Your task to perform on an android device: Show me the alarms in the clock app Image 0: 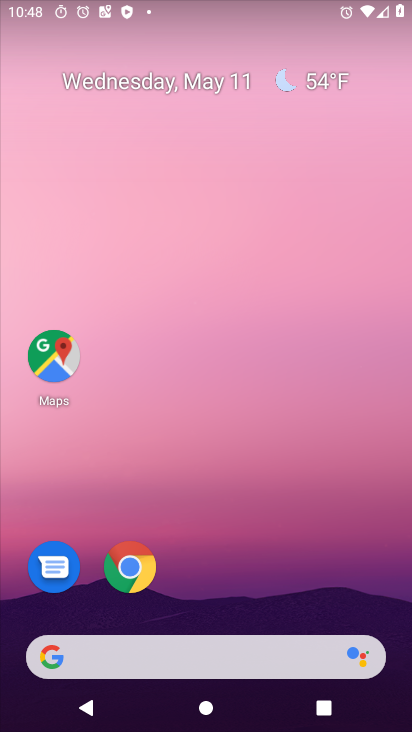
Step 0: drag from (197, 593) to (197, 133)
Your task to perform on an android device: Show me the alarms in the clock app Image 1: 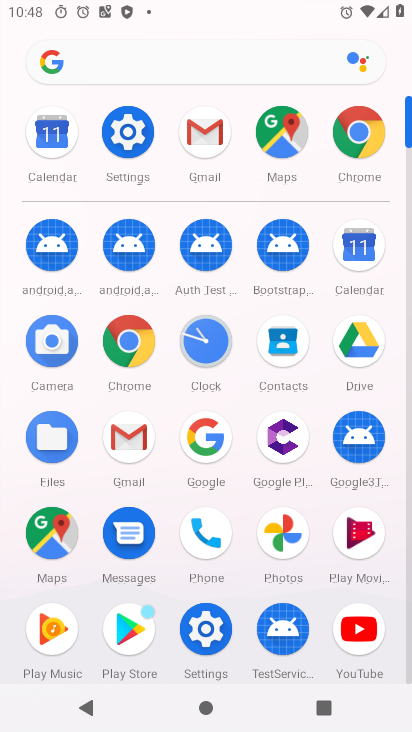
Step 1: click (205, 348)
Your task to perform on an android device: Show me the alarms in the clock app Image 2: 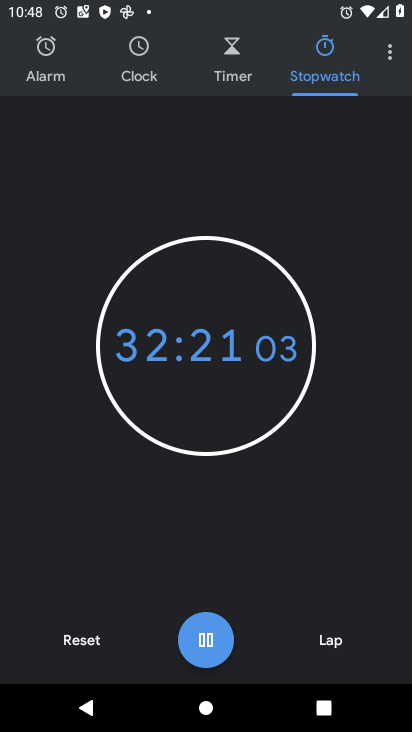
Step 2: click (93, 640)
Your task to perform on an android device: Show me the alarms in the clock app Image 3: 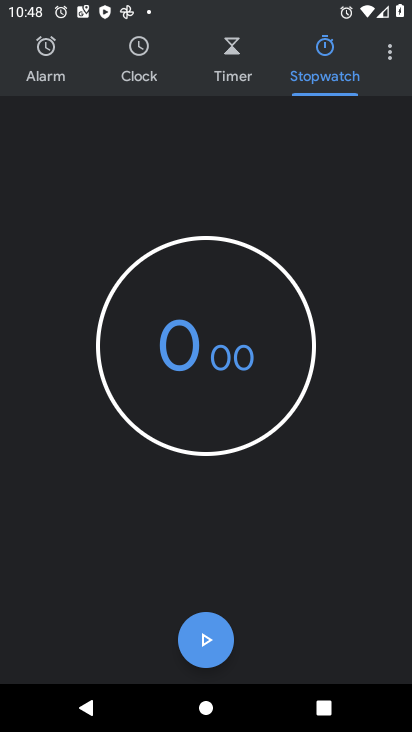
Step 3: click (52, 71)
Your task to perform on an android device: Show me the alarms in the clock app Image 4: 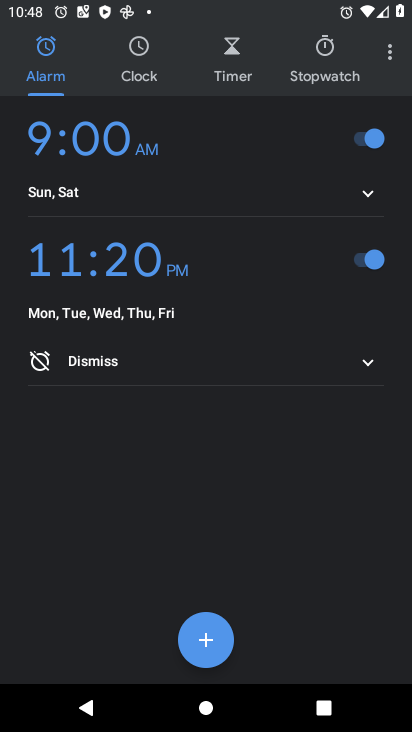
Step 4: task complete